Your task to perform on an android device: Search for Mexican restaurants on Maps Image 0: 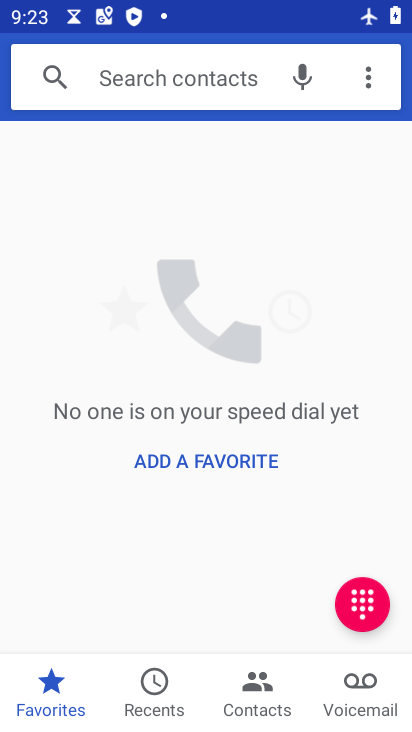
Step 0: press home button
Your task to perform on an android device: Search for Mexican restaurants on Maps Image 1: 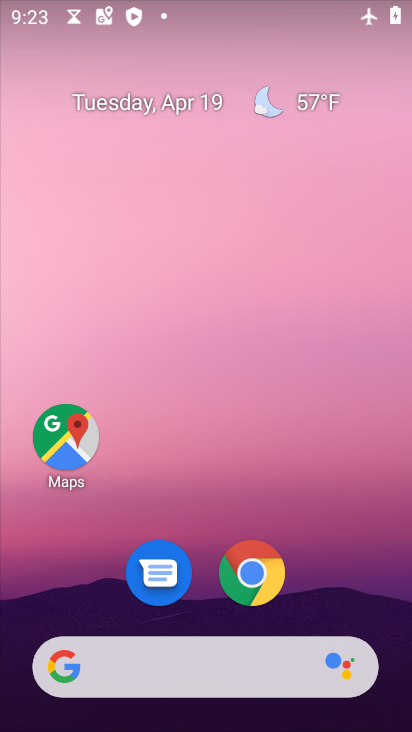
Step 1: click (70, 439)
Your task to perform on an android device: Search for Mexican restaurants on Maps Image 2: 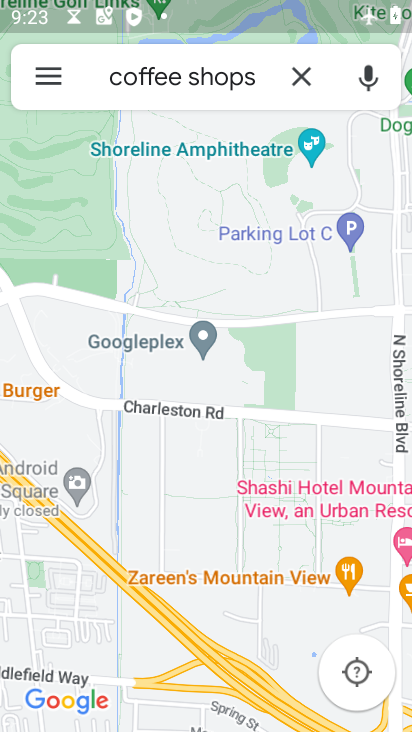
Step 2: click (302, 69)
Your task to perform on an android device: Search for Mexican restaurants on Maps Image 3: 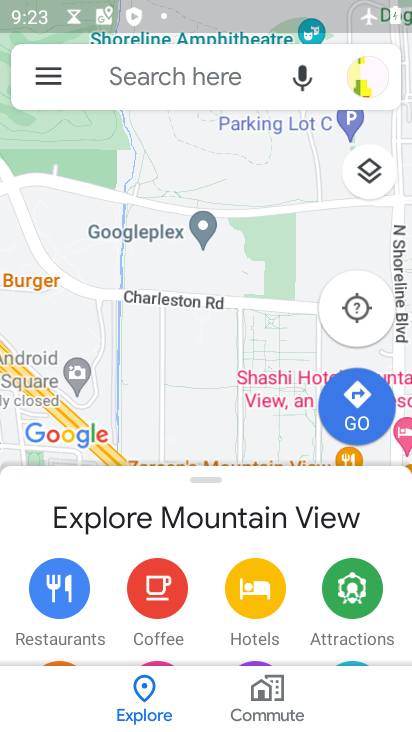
Step 3: click (235, 74)
Your task to perform on an android device: Search for Mexican restaurants on Maps Image 4: 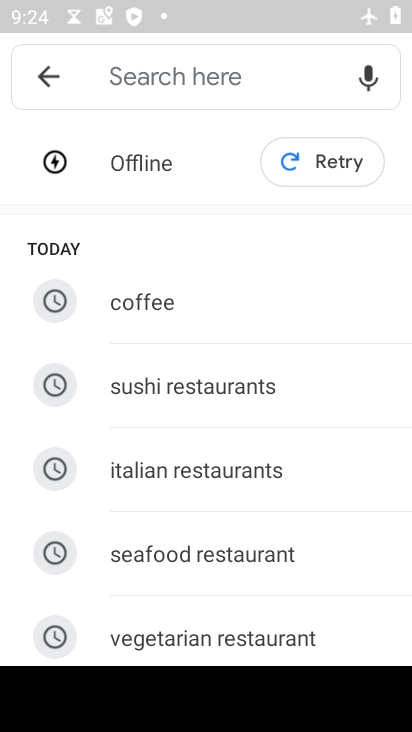
Step 4: type "mexican restaurants"
Your task to perform on an android device: Search for Mexican restaurants on Maps Image 5: 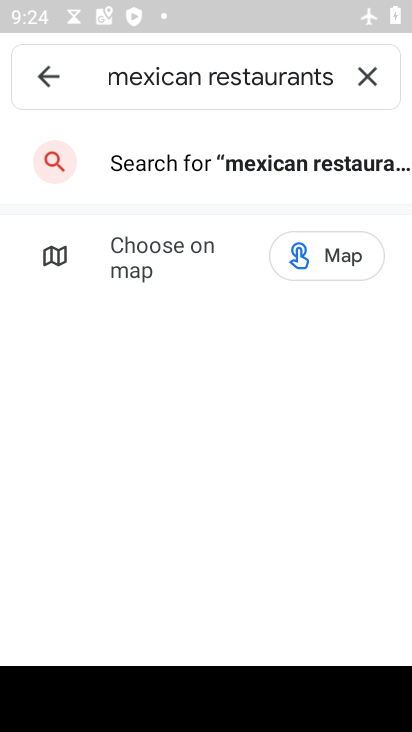
Step 5: drag from (279, 17) to (257, 553)
Your task to perform on an android device: Search for Mexican restaurants on Maps Image 6: 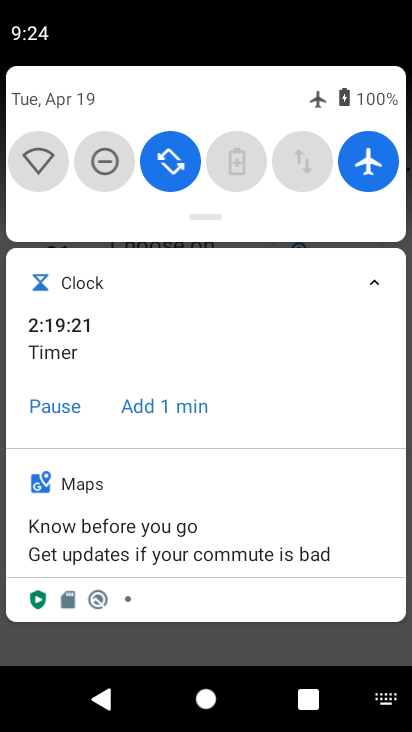
Step 6: click (368, 165)
Your task to perform on an android device: Search for Mexican restaurants on Maps Image 7: 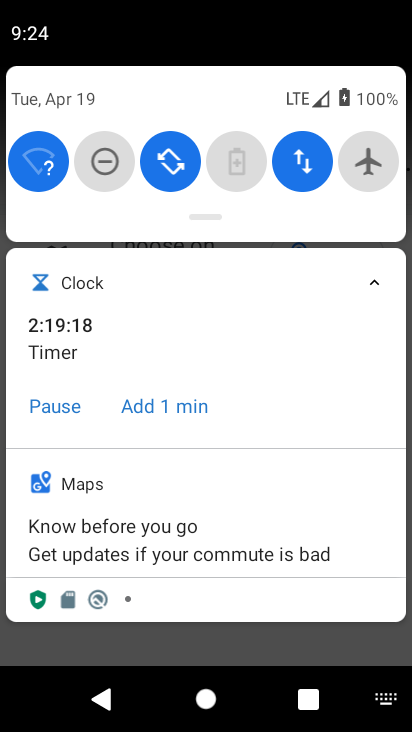
Step 7: click (332, 639)
Your task to perform on an android device: Search for Mexican restaurants on Maps Image 8: 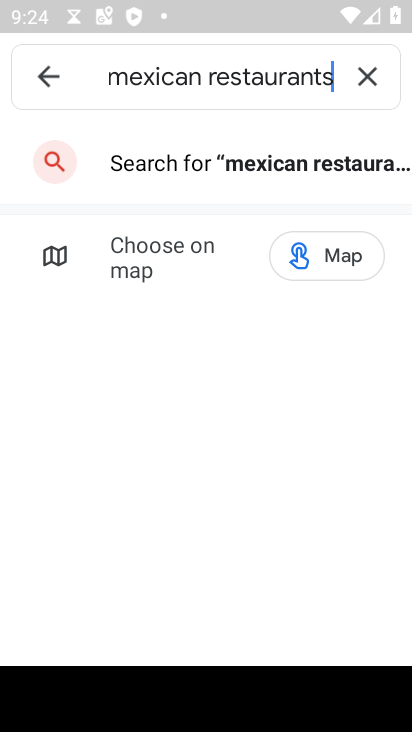
Step 8: drag from (258, 208) to (236, 560)
Your task to perform on an android device: Search for Mexican restaurants on Maps Image 9: 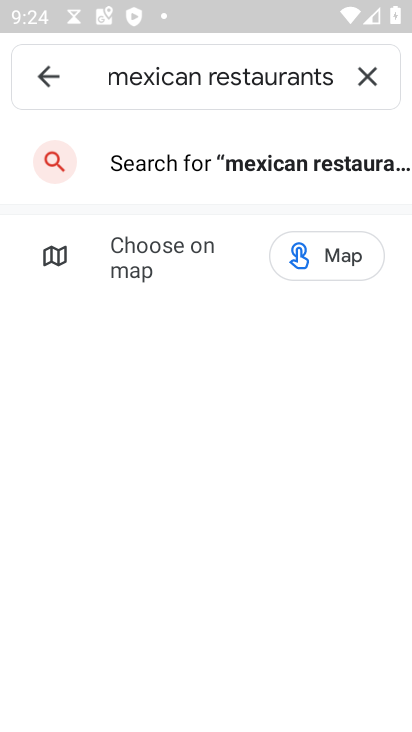
Step 9: click (274, 164)
Your task to perform on an android device: Search for Mexican restaurants on Maps Image 10: 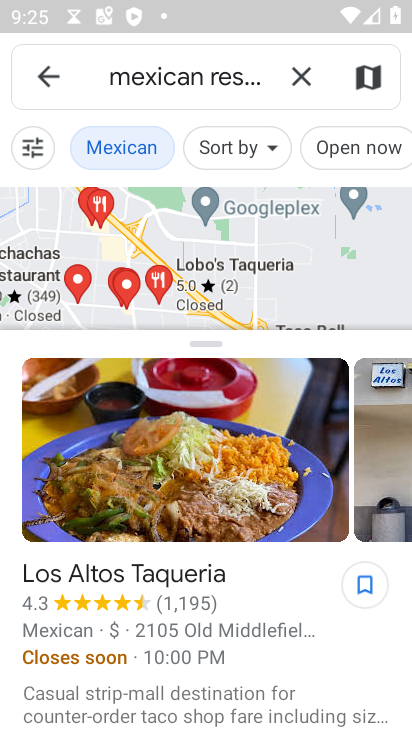
Step 10: task complete